Your task to perform on an android device: Show me recent news Image 0: 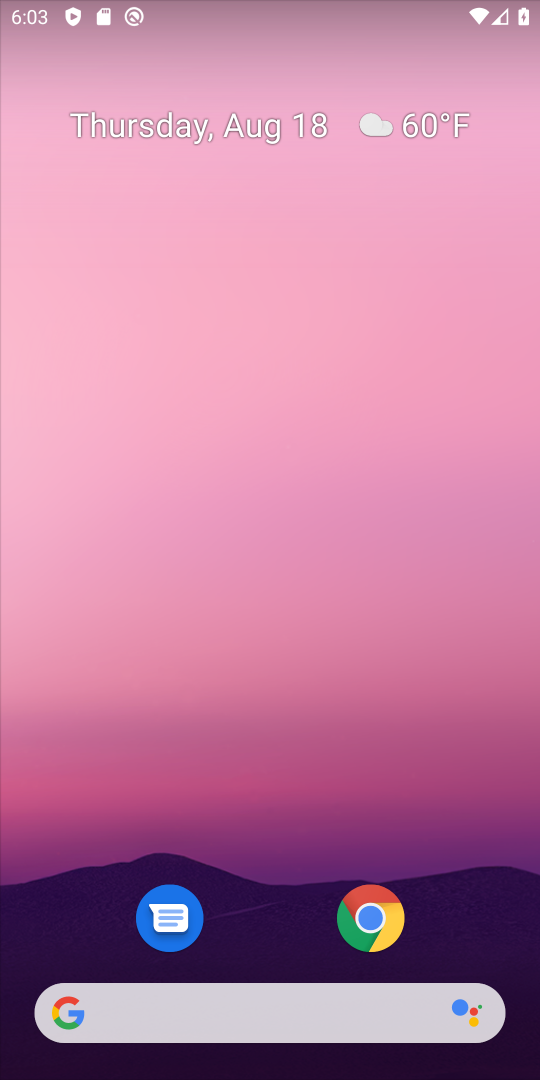
Step 0: press home button
Your task to perform on an android device: Show me recent news Image 1: 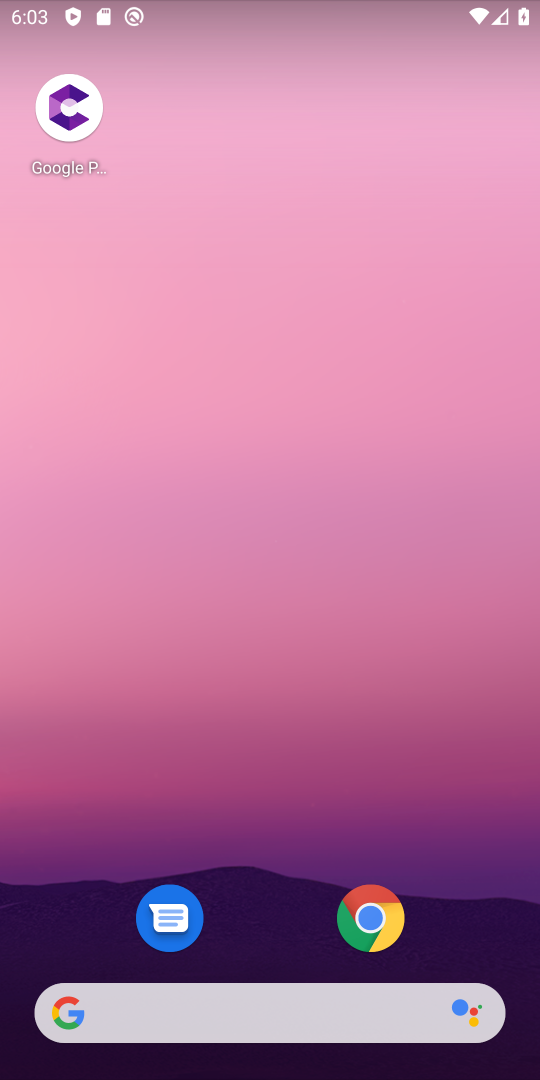
Step 1: click (59, 1016)
Your task to perform on an android device: Show me recent news Image 2: 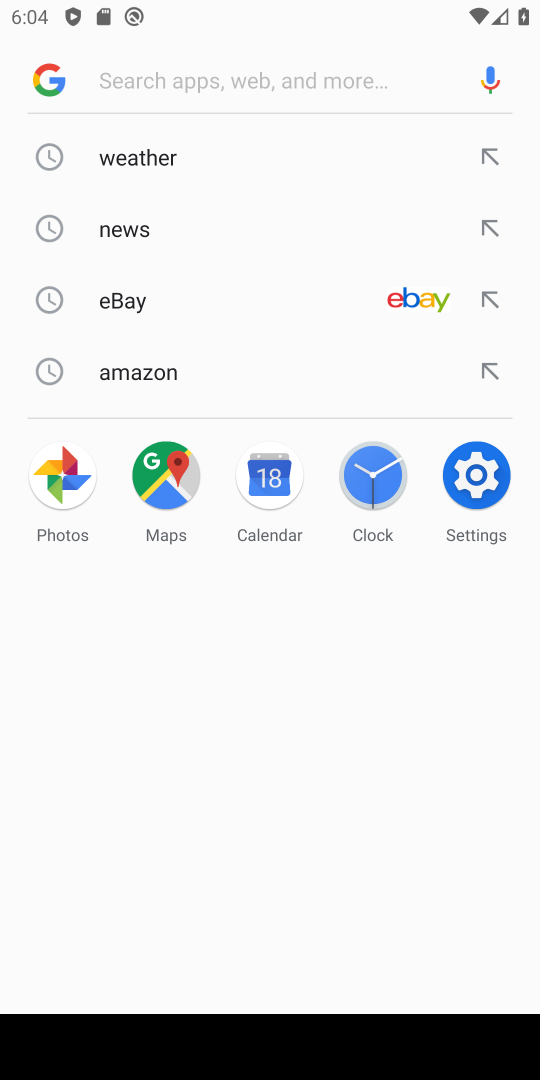
Step 2: type " recent news"
Your task to perform on an android device: Show me recent news Image 3: 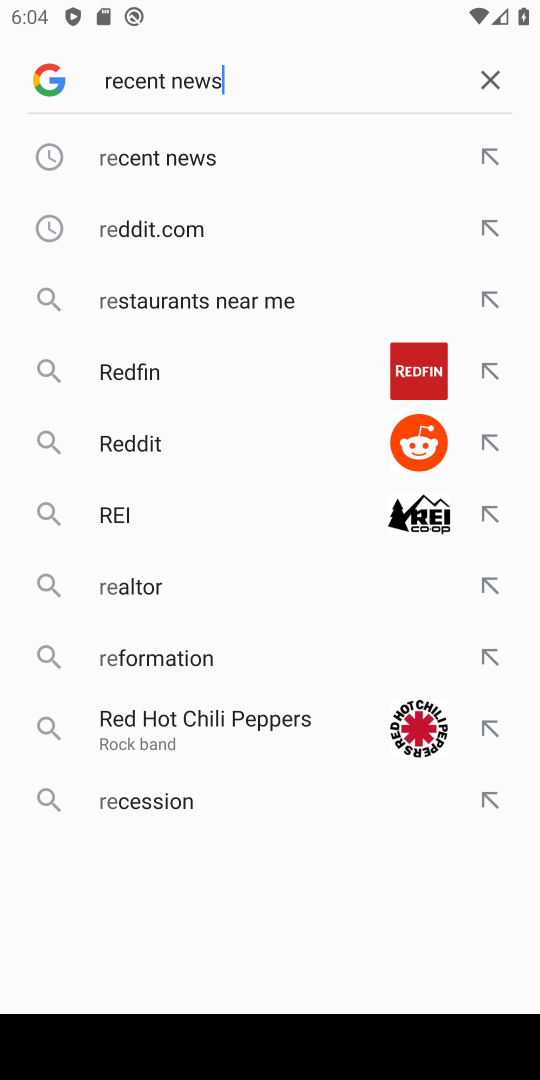
Step 3: press enter
Your task to perform on an android device: Show me recent news Image 4: 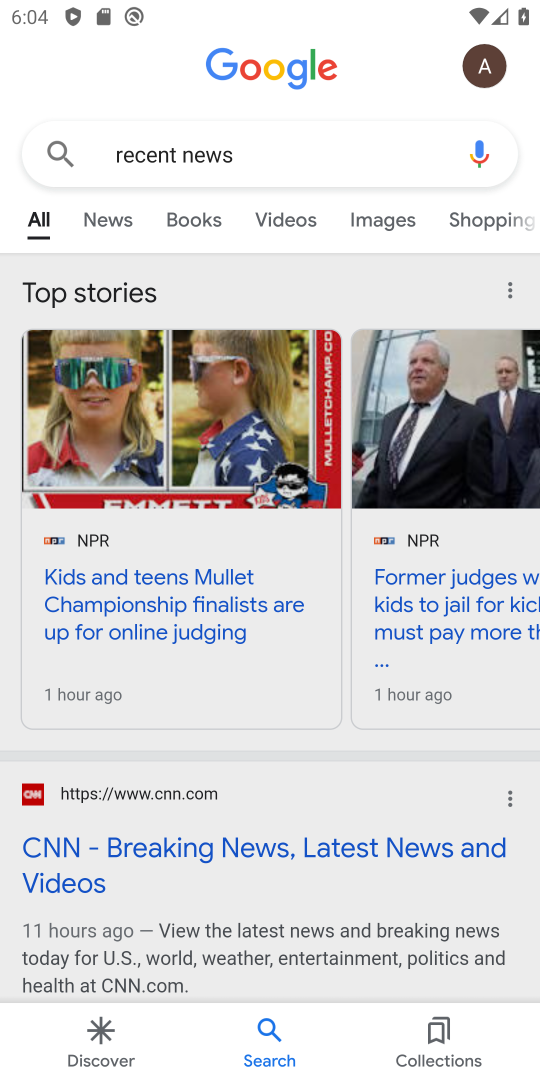
Step 4: task complete